Your task to perform on an android device: stop showing notifications on the lock screen Image 0: 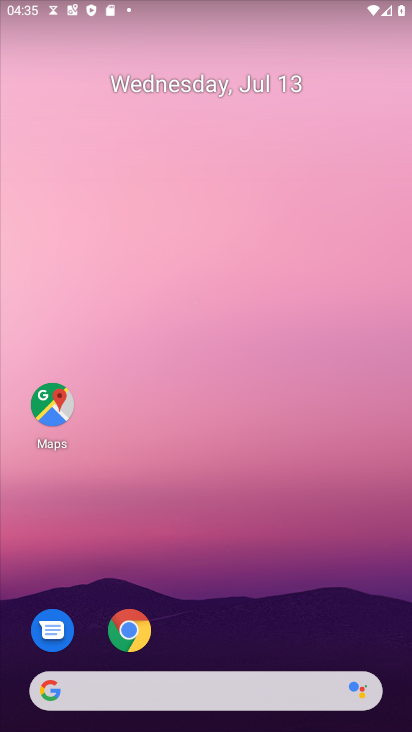
Step 0: drag from (296, 669) to (318, 11)
Your task to perform on an android device: stop showing notifications on the lock screen Image 1: 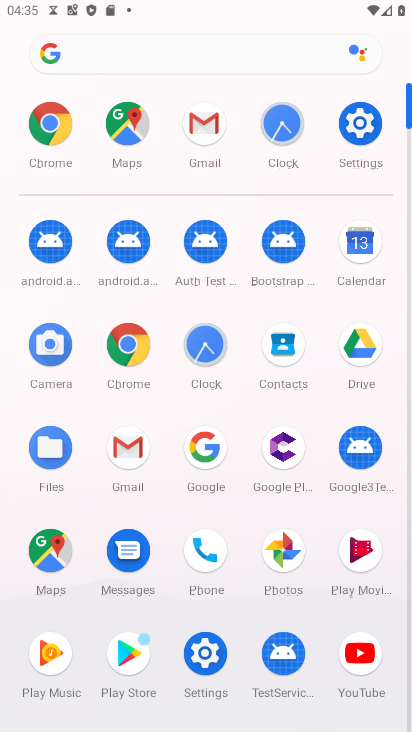
Step 1: click (341, 124)
Your task to perform on an android device: stop showing notifications on the lock screen Image 2: 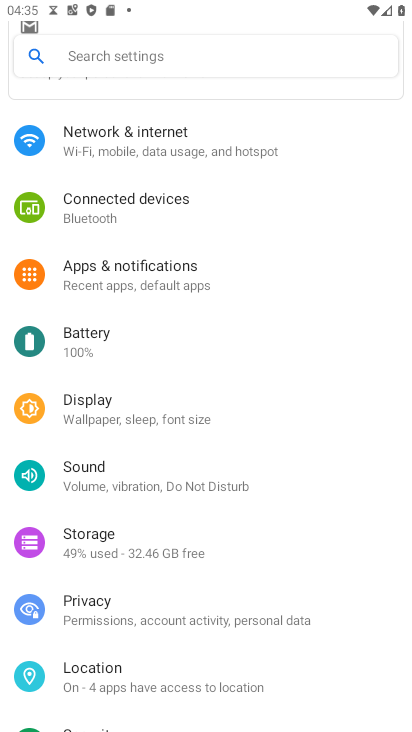
Step 2: click (179, 276)
Your task to perform on an android device: stop showing notifications on the lock screen Image 3: 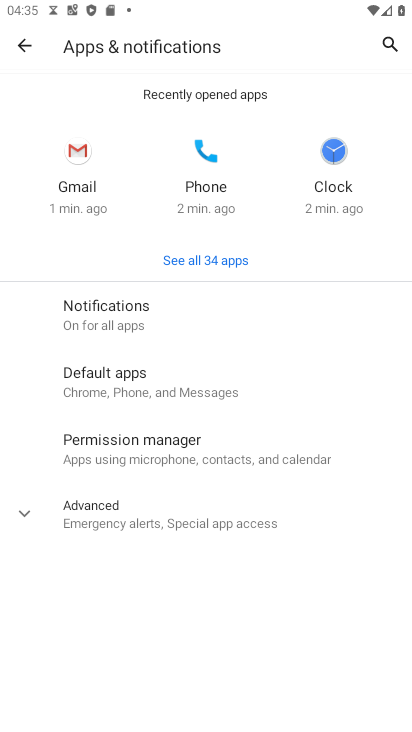
Step 3: click (139, 306)
Your task to perform on an android device: stop showing notifications on the lock screen Image 4: 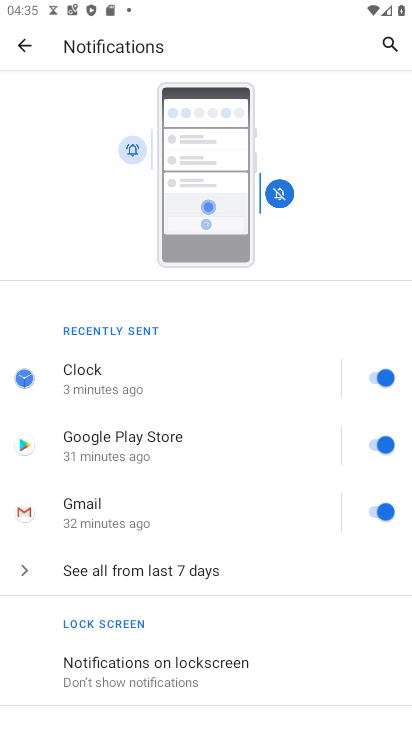
Step 4: click (177, 665)
Your task to perform on an android device: stop showing notifications on the lock screen Image 5: 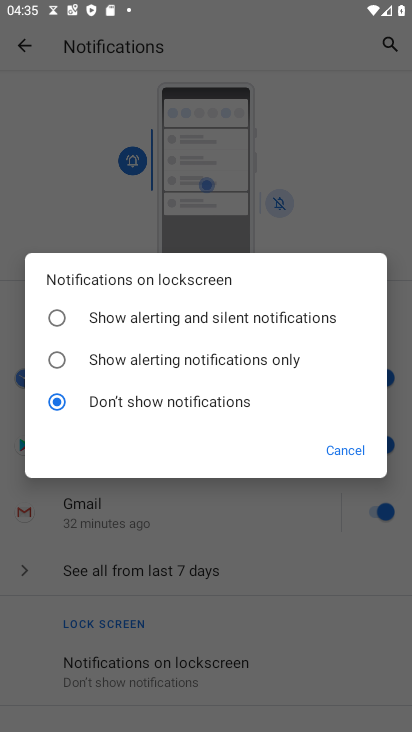
Step 5: task complete